Your task to perform on an android device: Add dell xps to the cart on walmart Image 0: 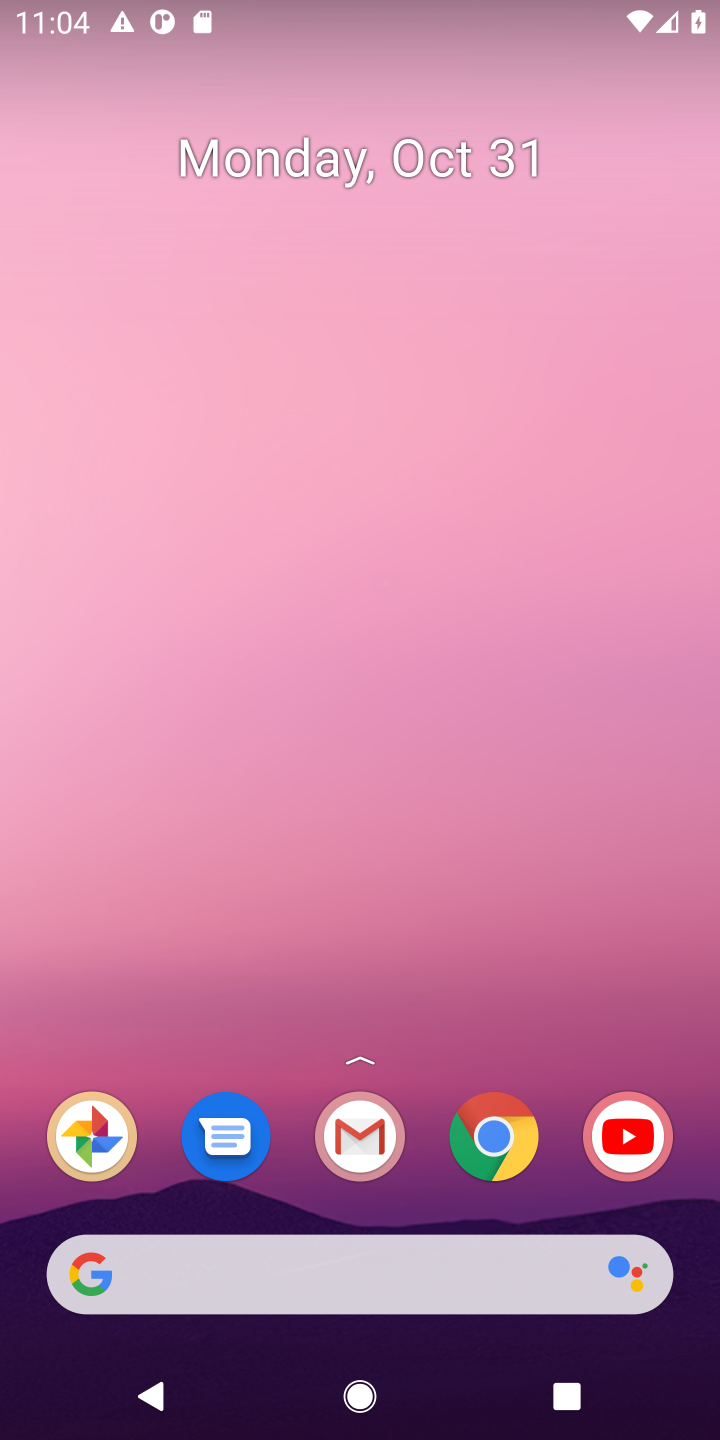
Step 0: press home button
Your task to perform on an android device: Add dell xps to the cart on walmart Image 1: 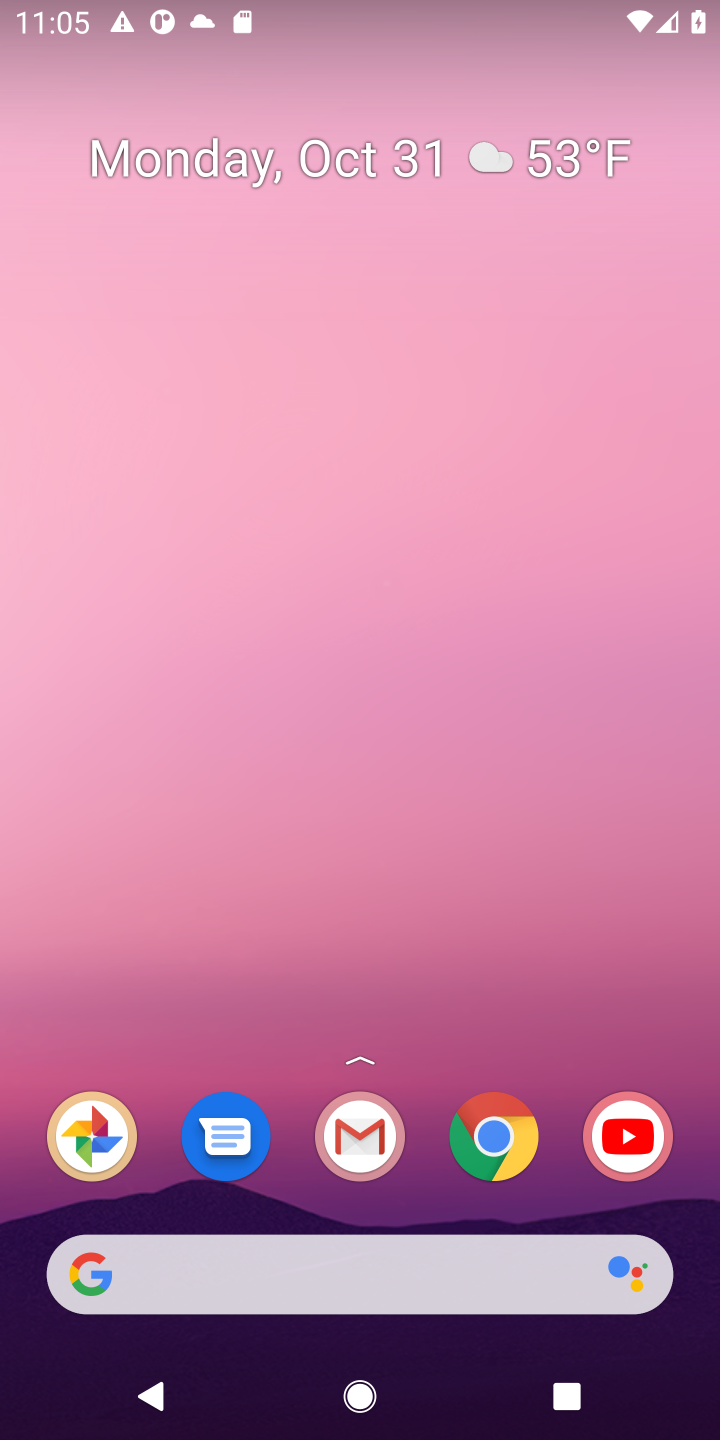
Step 1: click (135, 1272)
Your task to perform on an android device: Add dell xps to the cart on walmart Image 2: 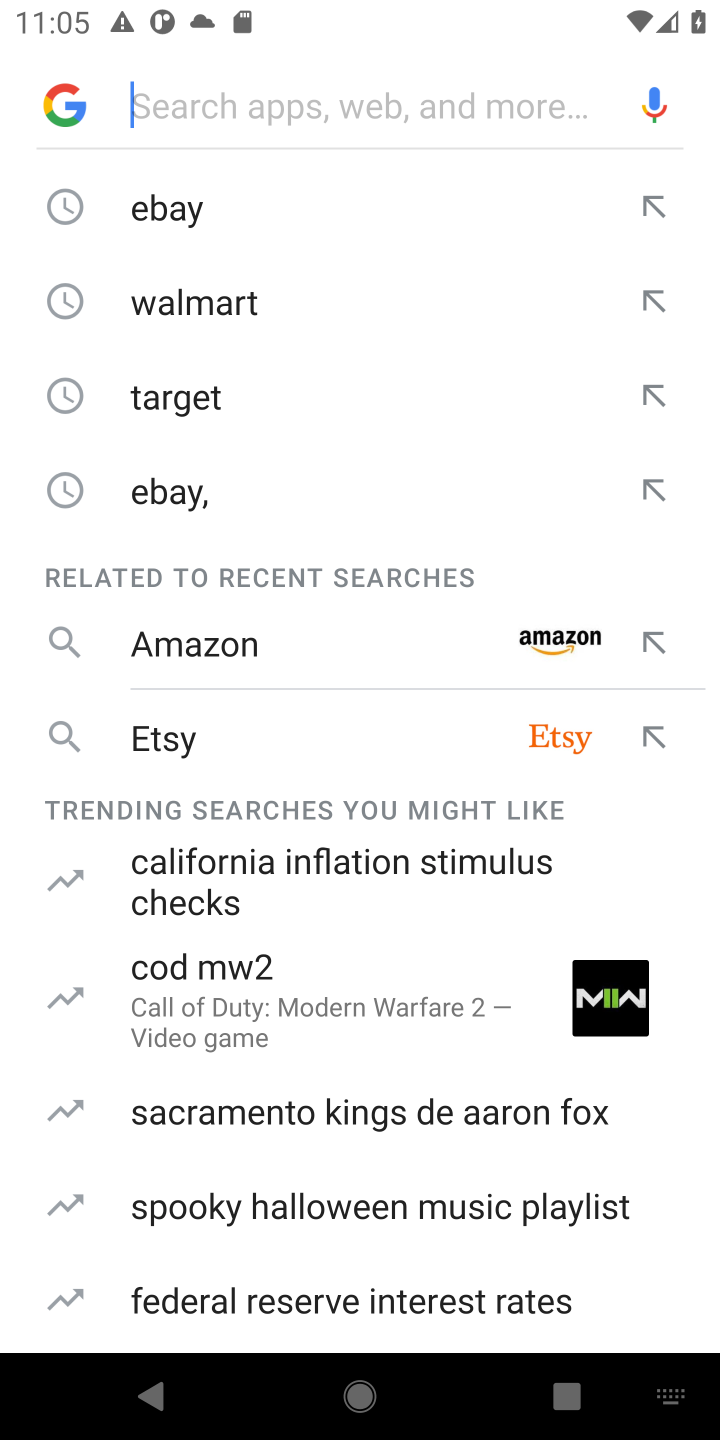
Step 2: type "walmart"
Your task to perform on an android device: Add dell xps to the cart on walmart Image 3: 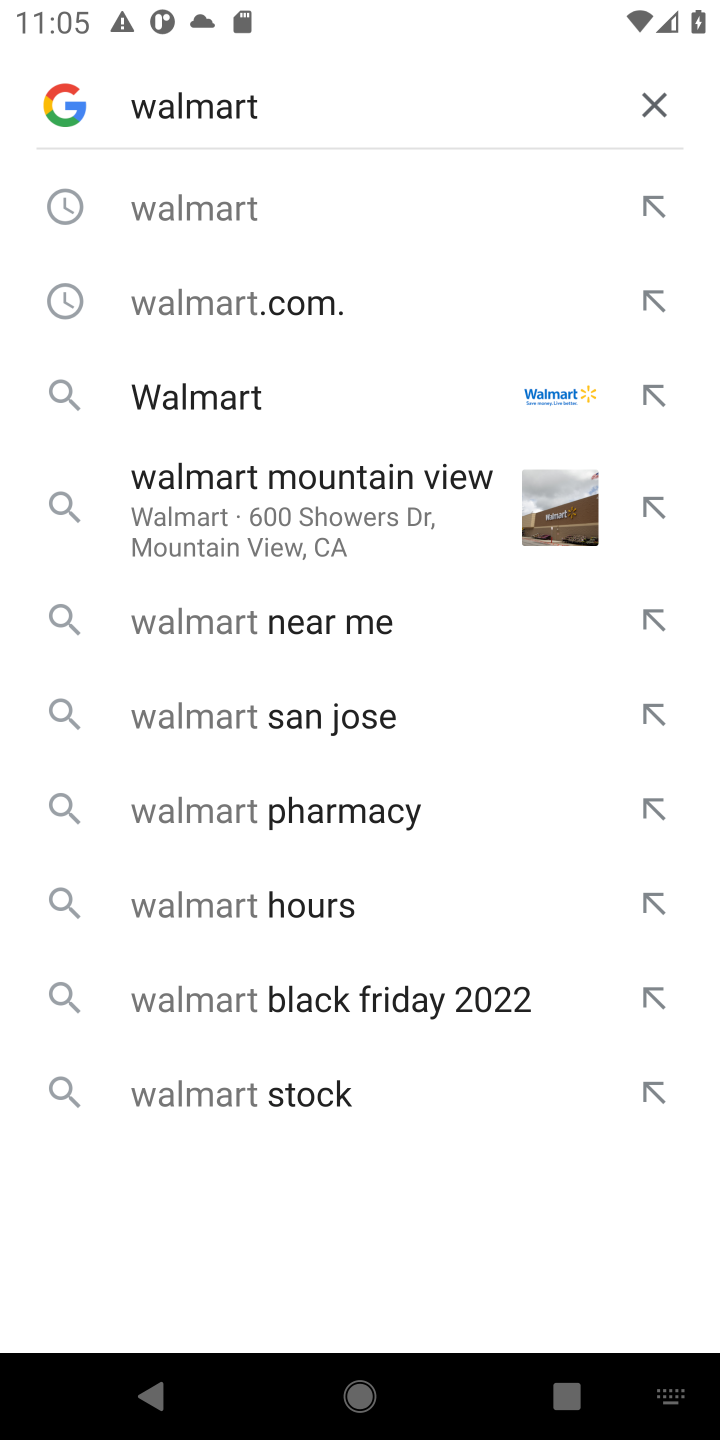
Step 3: press enter
Your task to perform on an android device: Add dell xps to the cart on walmart Image 4: 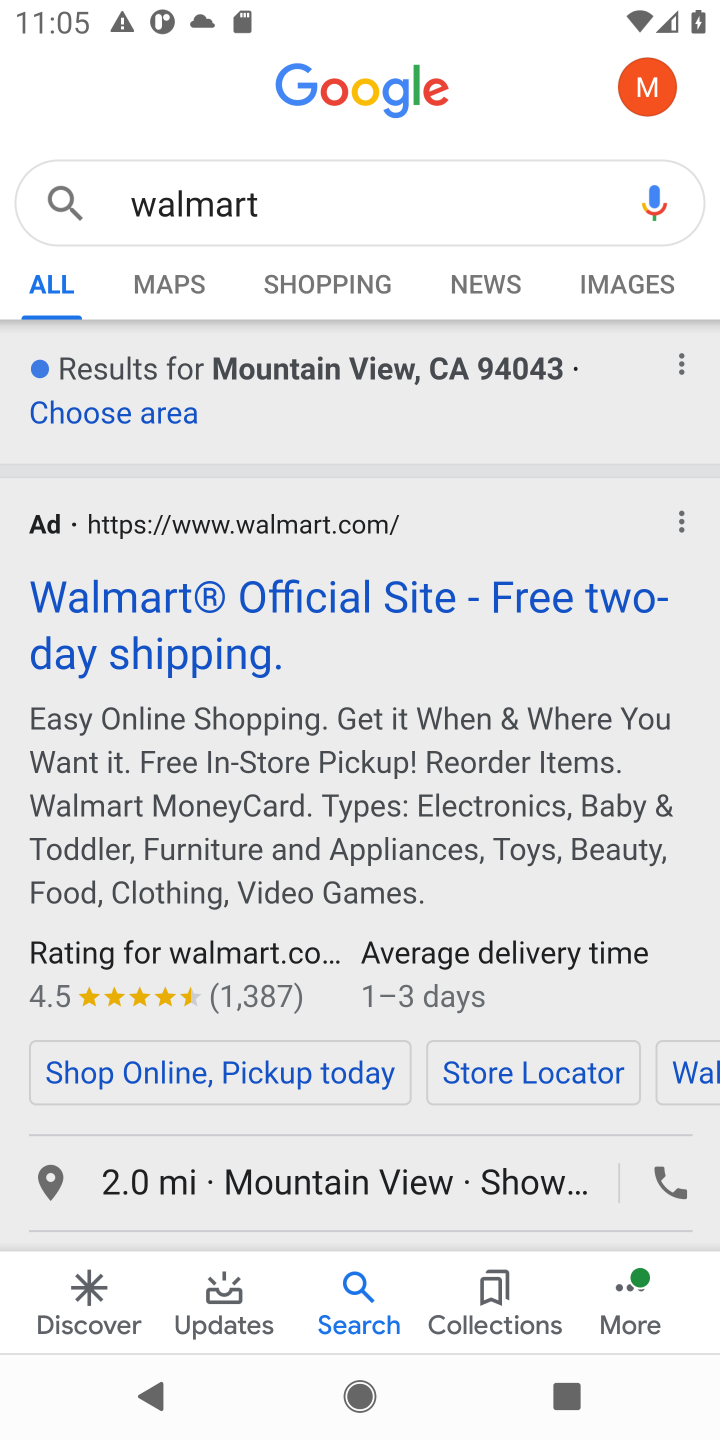
Step 4: click (163, 605)
Your task to perform on an android device: Add dell xps to the cart on walmart Image 5: 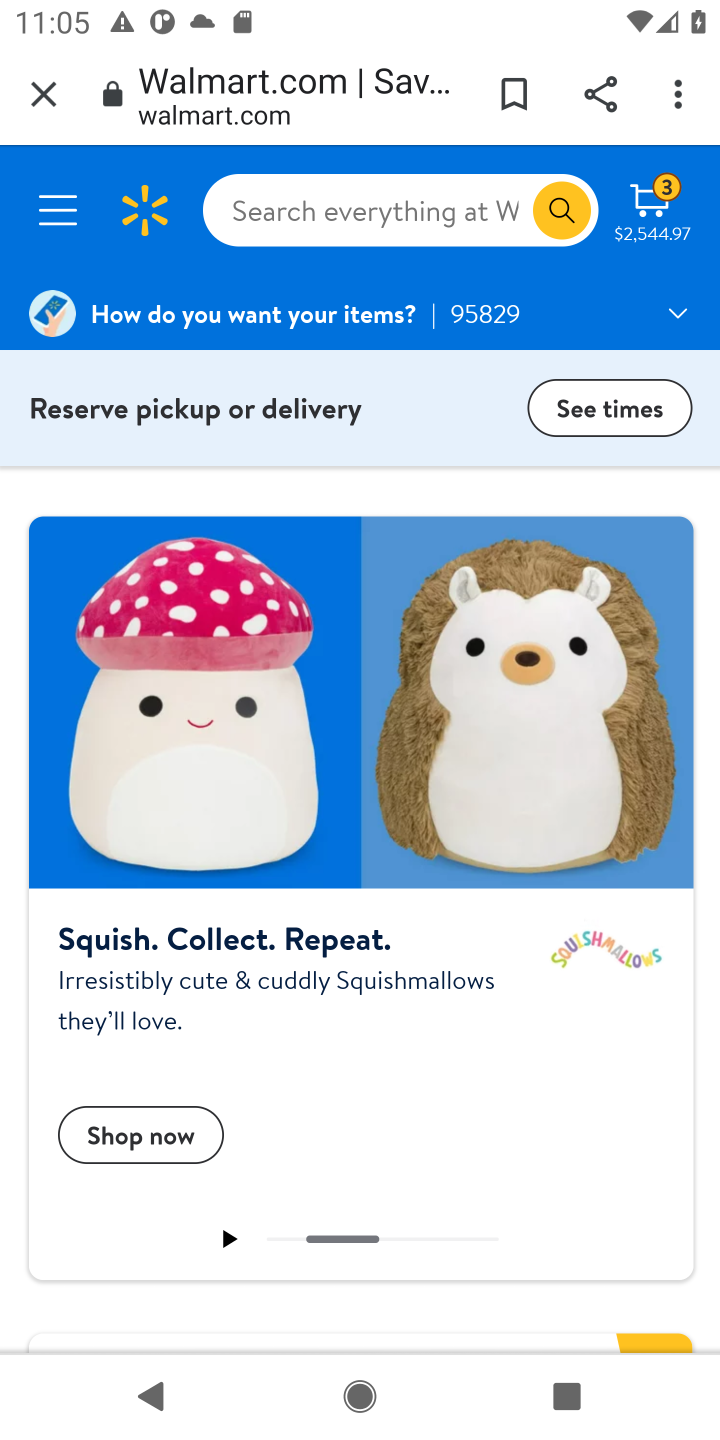
Step 5: click (261, 200)
Your task to perform on an android device: Add dell xps to the cart on walmart Image 6: 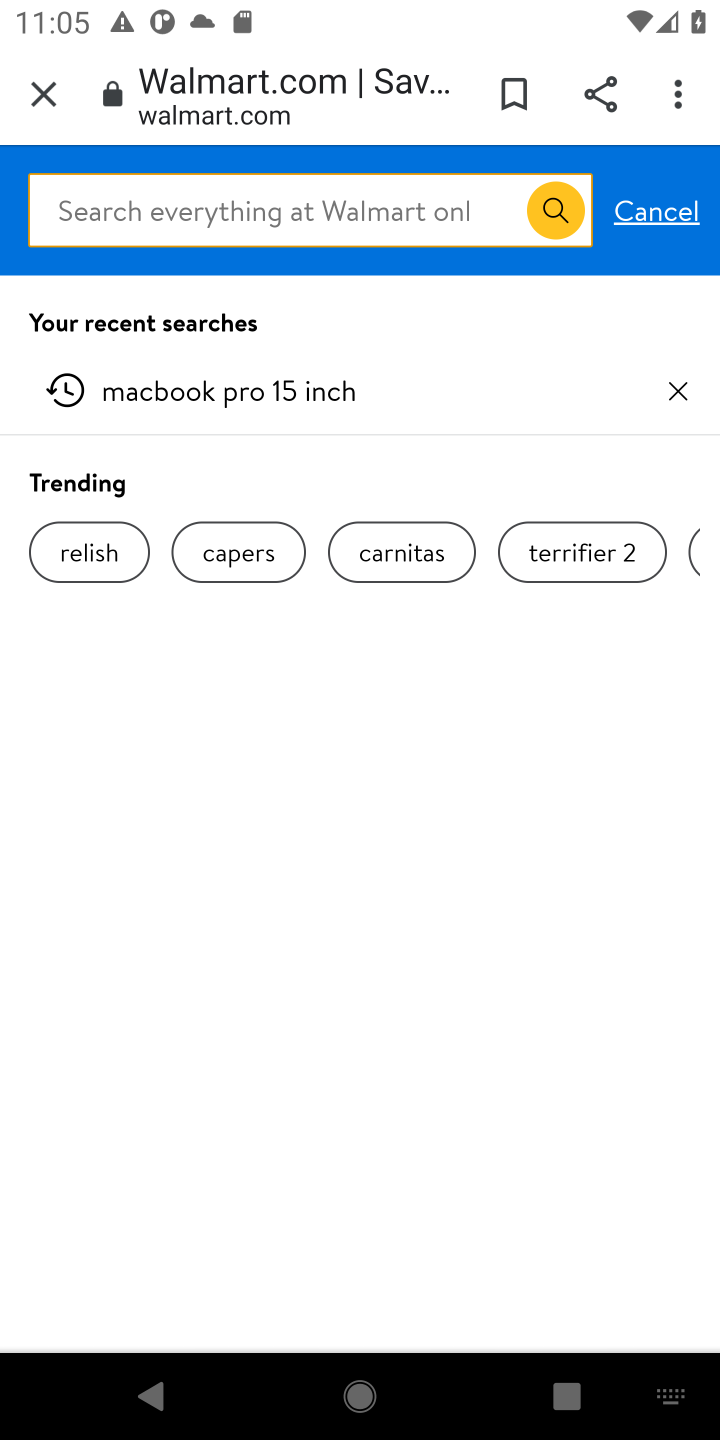
Step 6: type "dell xps"
Your task to perform on an android device: Add dell xps to the cart on walmart Image 7: 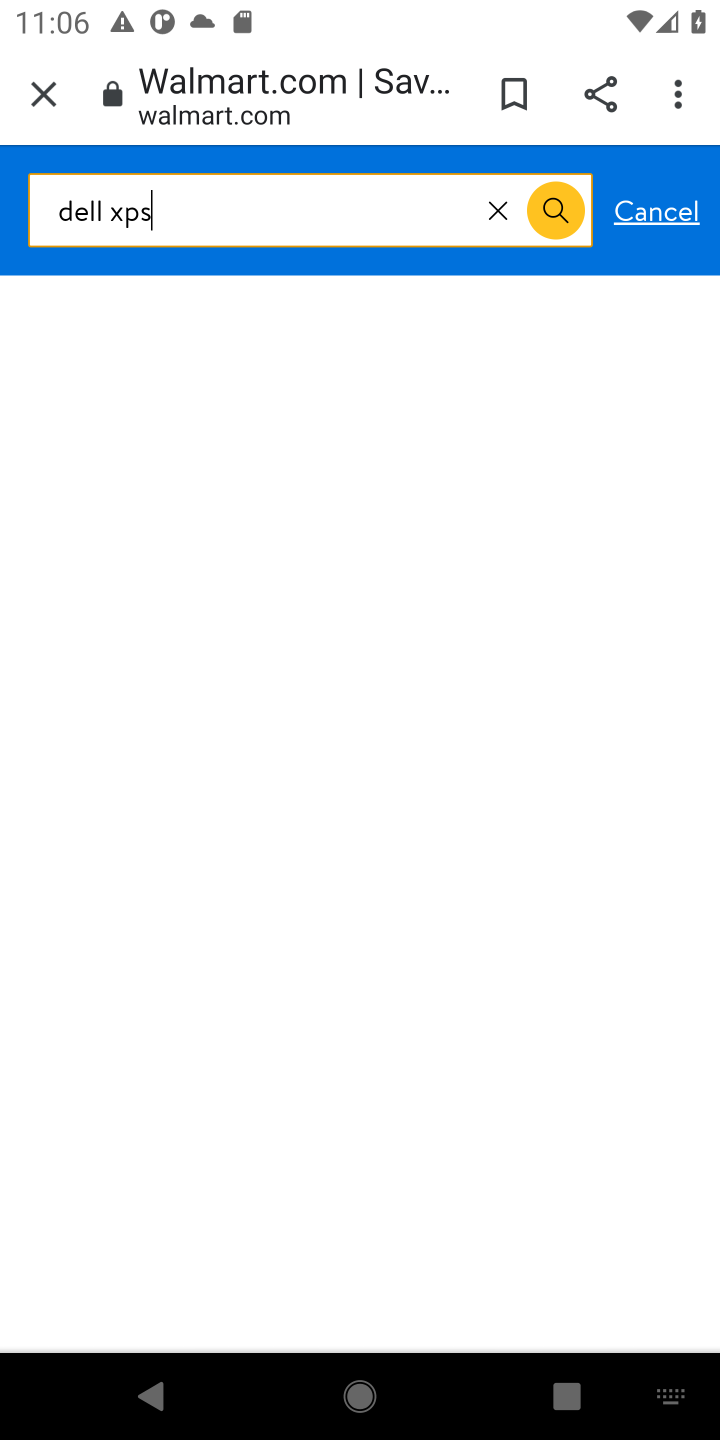
Step 7: press enter
Your task to perform on an android device: Add dell xps to the cart on walmart Image 8: 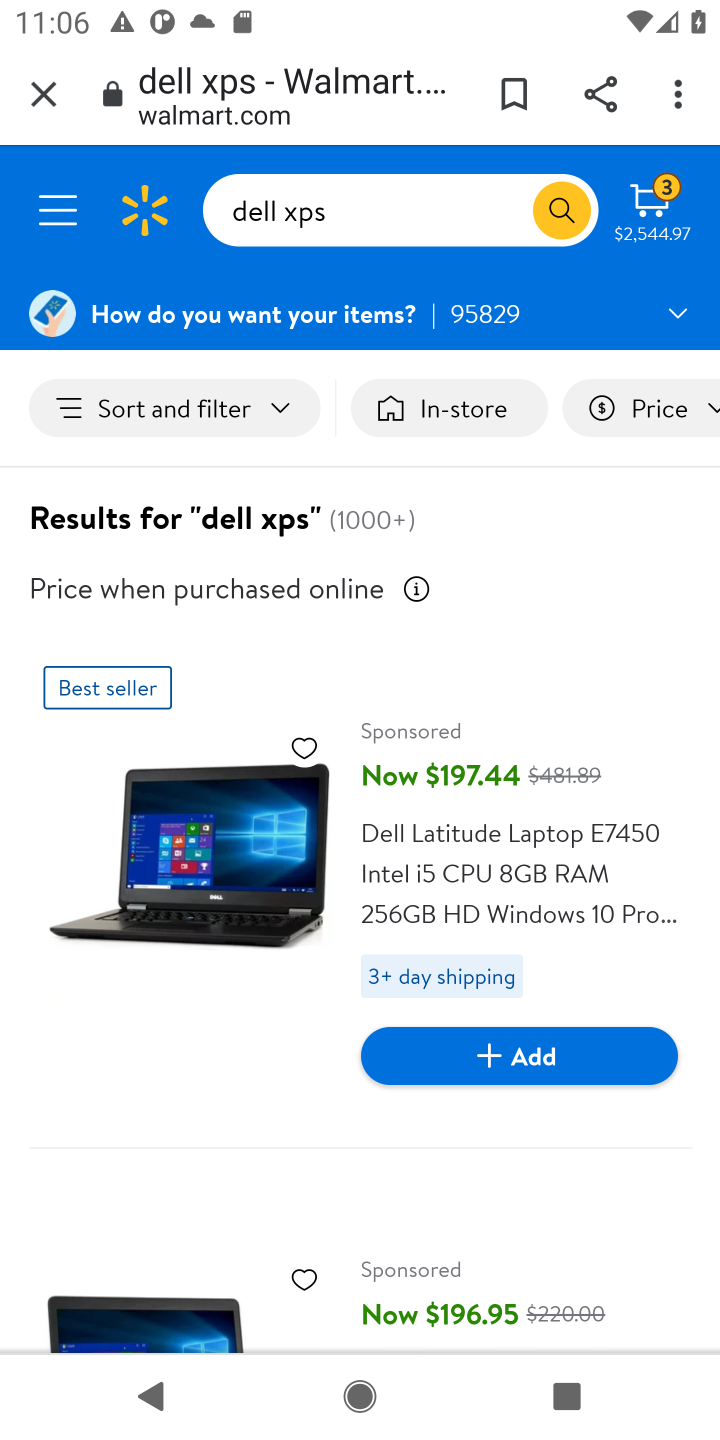
Step 8: drag from (401, 1051) to (379, 781)
Your task to perform on an android device: Add dell xps to the cart on walmart Image 9: 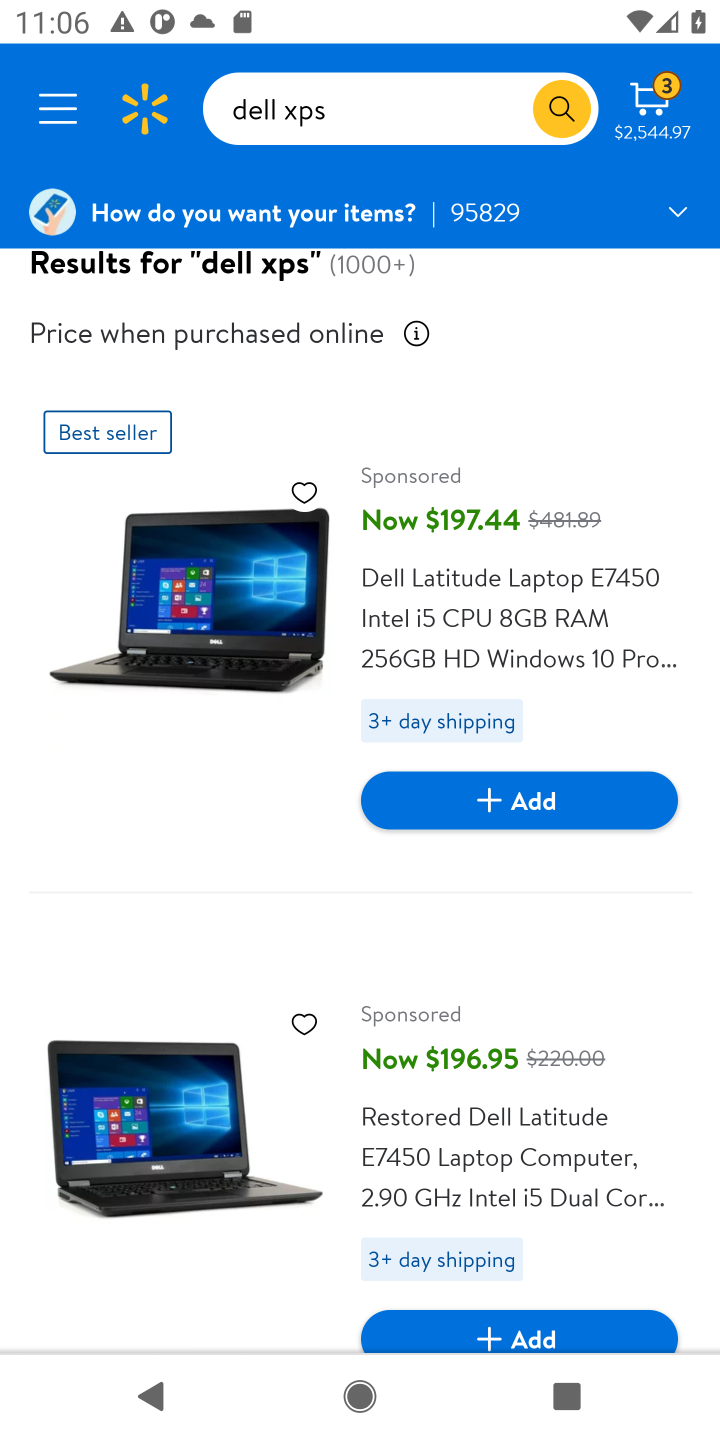
Step 9: drag from (340, 1124) to (381, 517)
Your task to perform on an android device: Add dell xps to the cart on walmart Image 10: 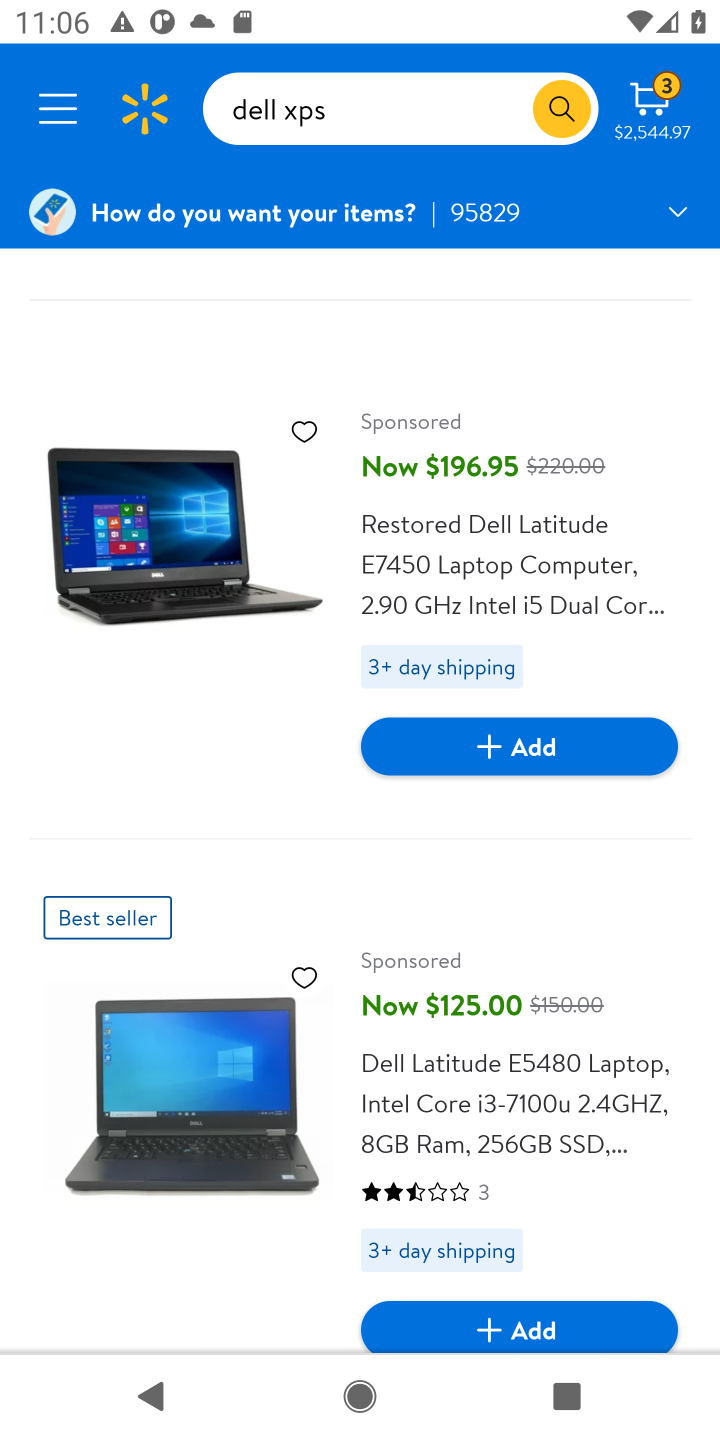
Step 10: drag from (327, 1099) to (368, 589)
Your task to perform on an android device: Add dell xps to the cart on walmart Image 11: 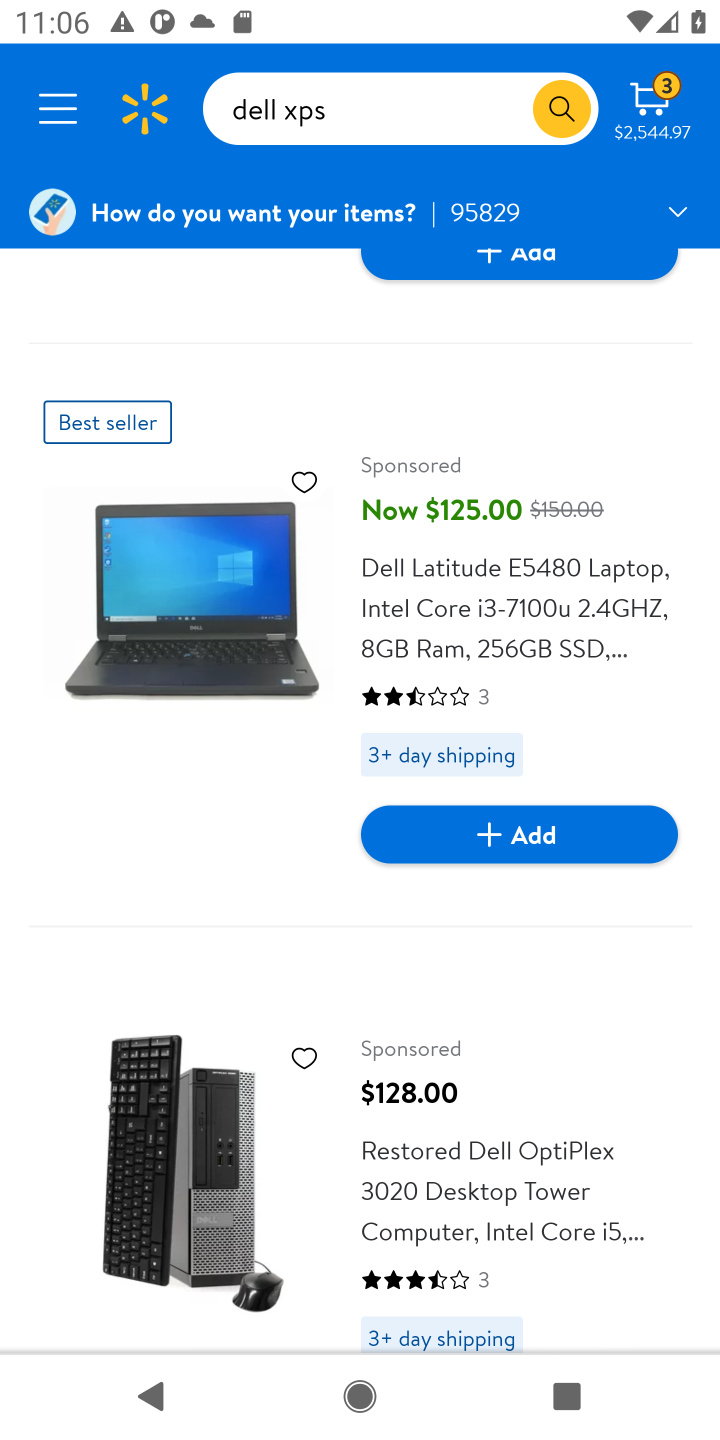
Step 11: drag from (373, 1231) to (436, 641)
Your task to perform on an android device: Add dell xps to the cart on walmart Image 12: 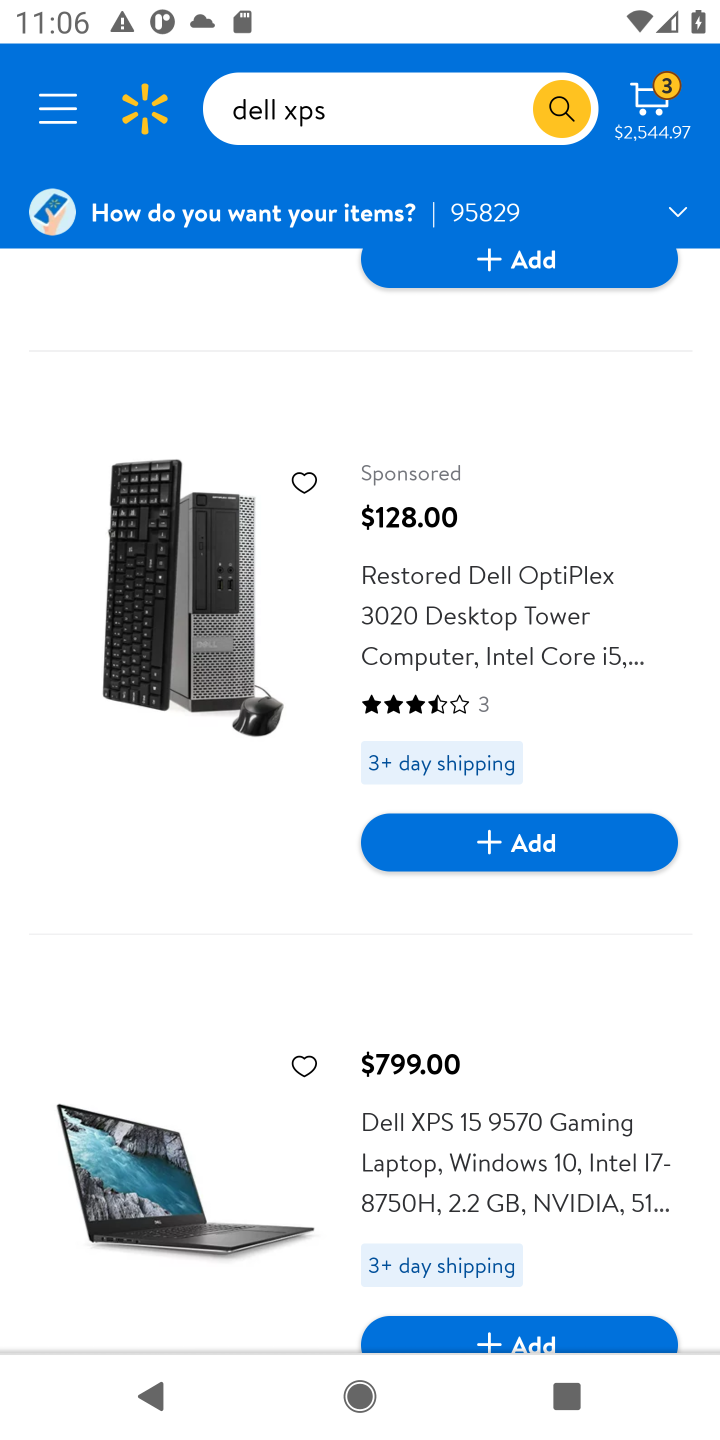
Step 12: drag from (459, 1099) to (461, 689)
Your task to perform on an android device: Add dell xps to the cart on walmart Image 13: 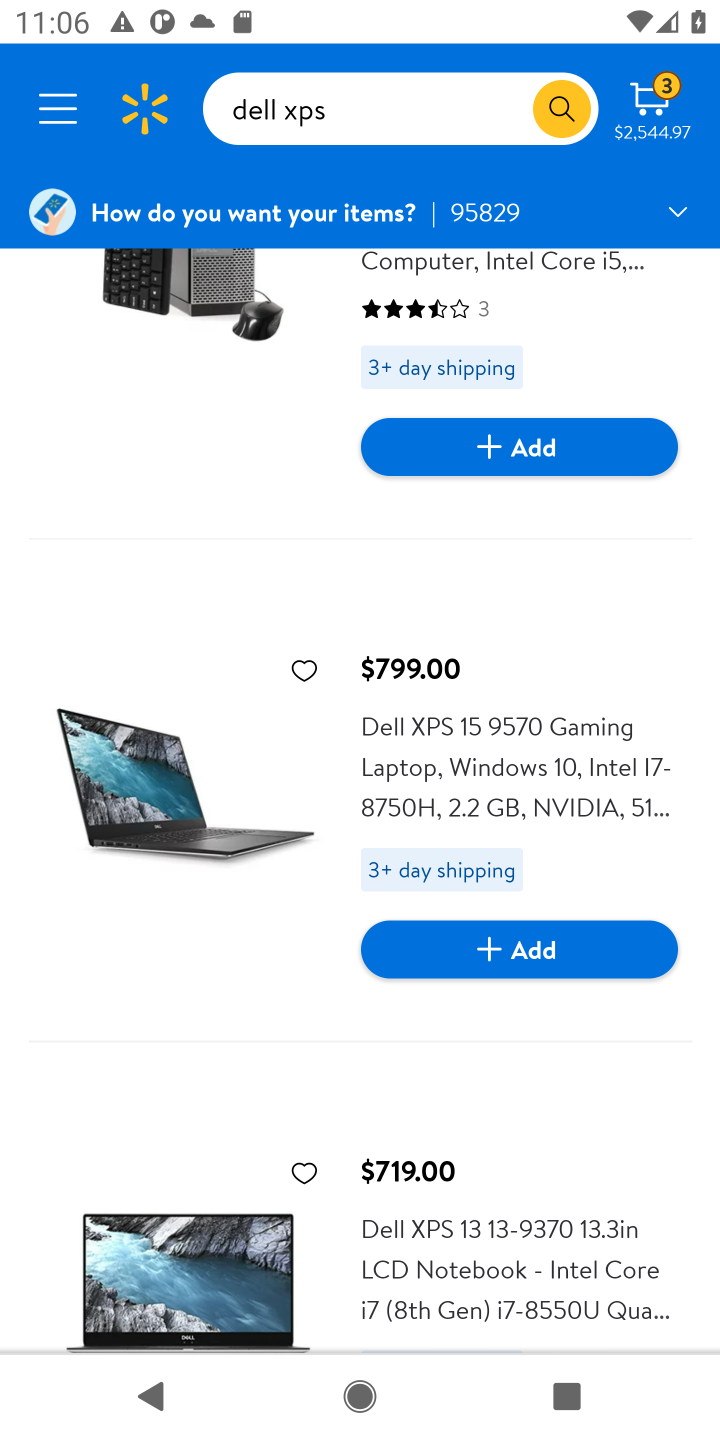
Step 13: click (537, 954)
Your task to perform on an android device: Add dell xps to the cart on walmart Image 14: 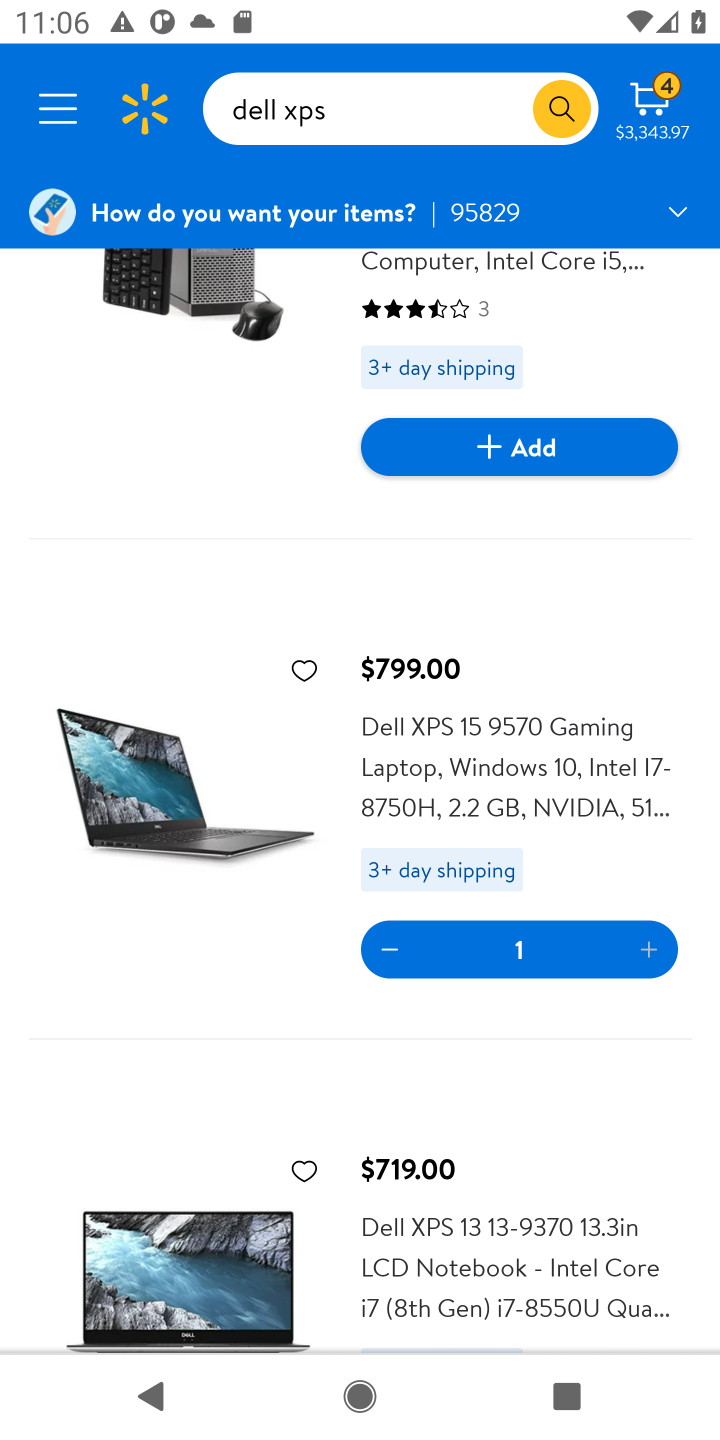
Step 14: task complete